Your task to perform on an android device: stop showing notifications on the lock screen Image 0: 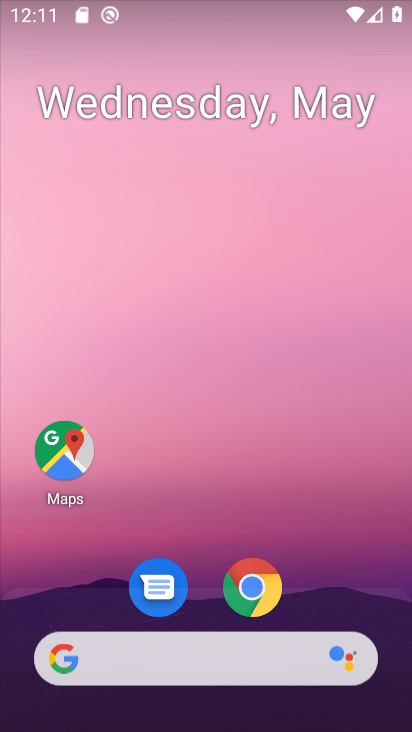
Step 0: drag from (97, 621) to (170, 218)
Your task to perform on an android device: stop showing notifications on the lock screen Image 1: 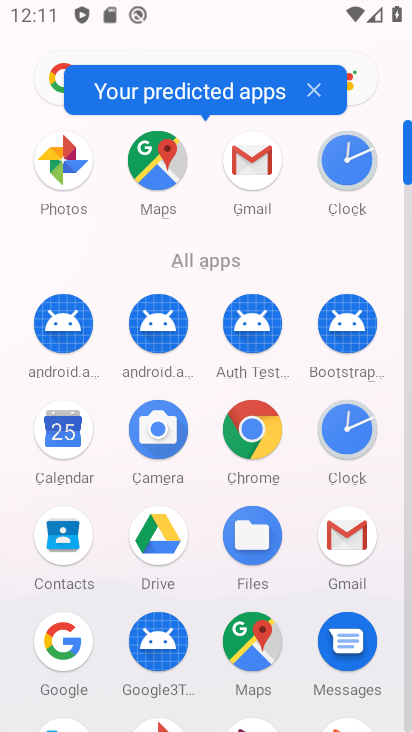
Step 1: drag from (150, 588) to (222, 337)
Your task to perform on an android device: stop showing notifications on the lock screen Image 2: 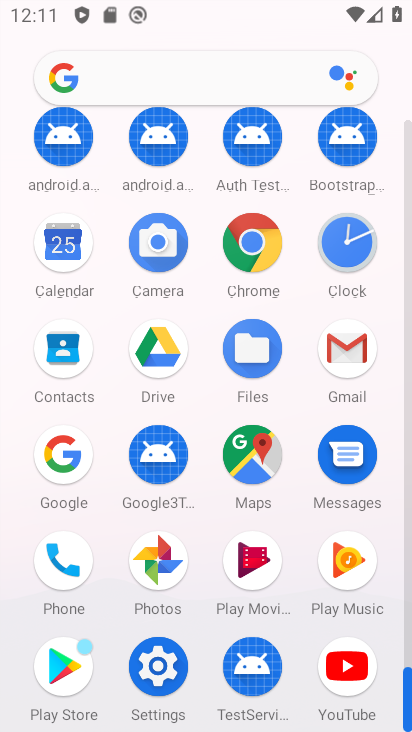
Step 2: click (168, 660)
Your task to perform on an android device: stop showing notifications on the lock screen Image 3: 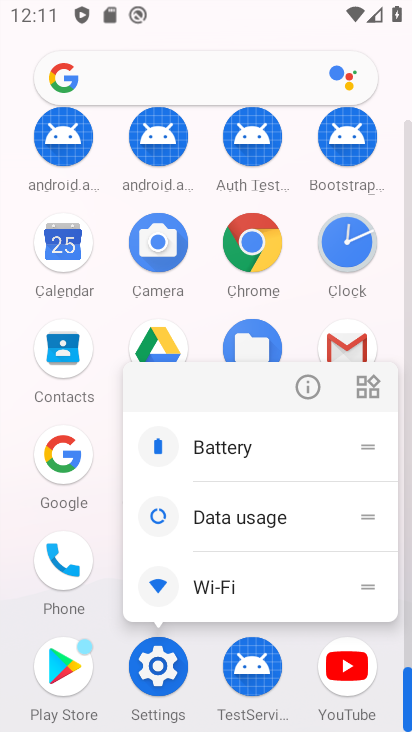
Step 3: click (163, 672)
Your task to perform on an android device: stop showing notifications on the lock screen Image 4: 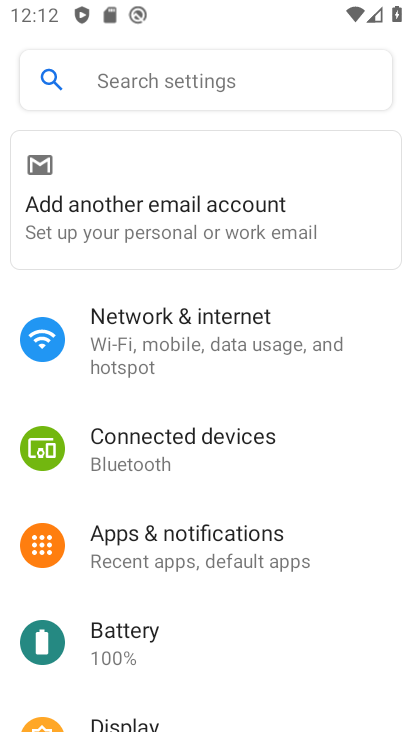
Step 4: drag from (74, 627) to (148, 341)
Your task to perform on an android device: stop showing notifications on the lock screen Image 5: 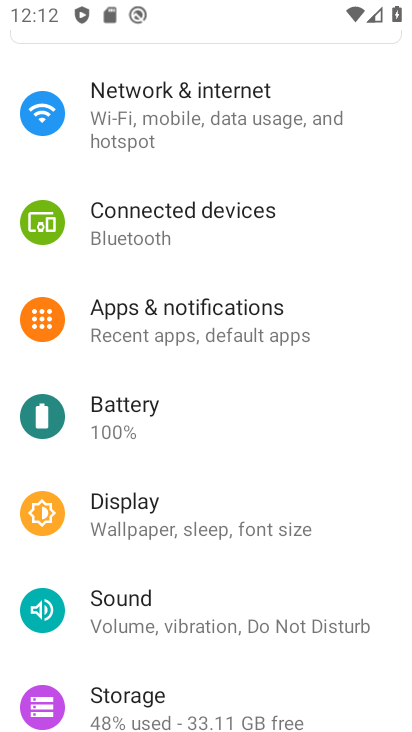
Step 5: click (219, 340)
Your task to perform on an android device: stop showing notifications on the lock screen Image 6: 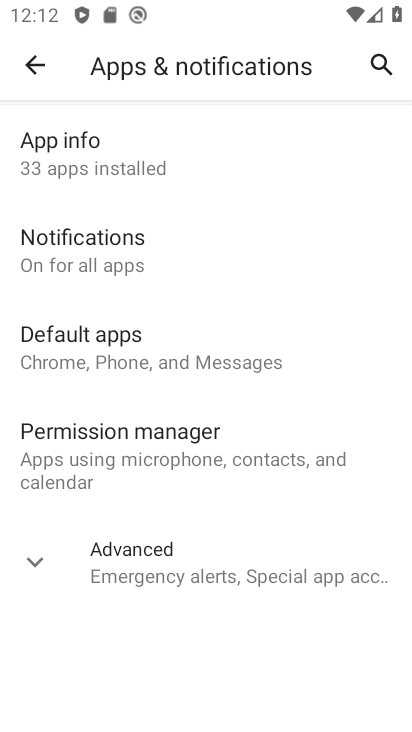
Step 6: click (140, 273)
Your task to perform on an android device: stop showing notifications on the lock screen Image 7: 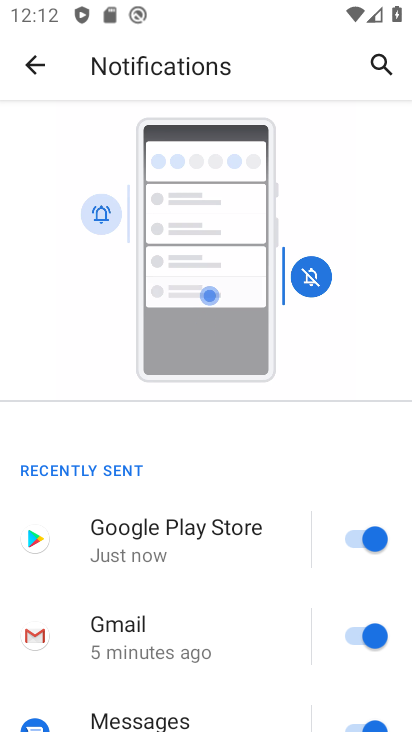
Step 7: drag from (113, 661) to (222, 178)
Your task to perform on an android device: stop showing notifications on the lock screen Image 8: 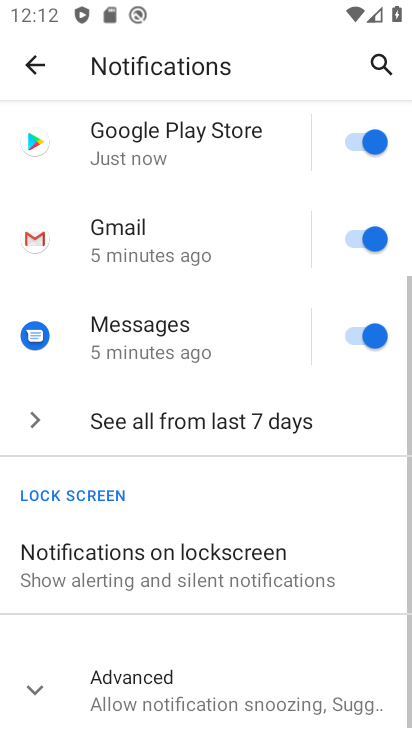
Step 8: drag from (148, 655) to (227, 305)
Your task to perform on an android device: stop showing notifications on the lock screen Image 9: 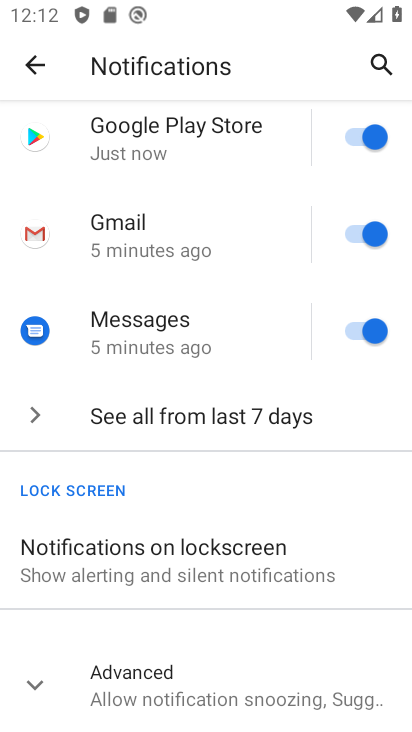
Step 9: click (246, 585)
Your task to perform on an android device: stop showing notifications on the lock screen Image 10: 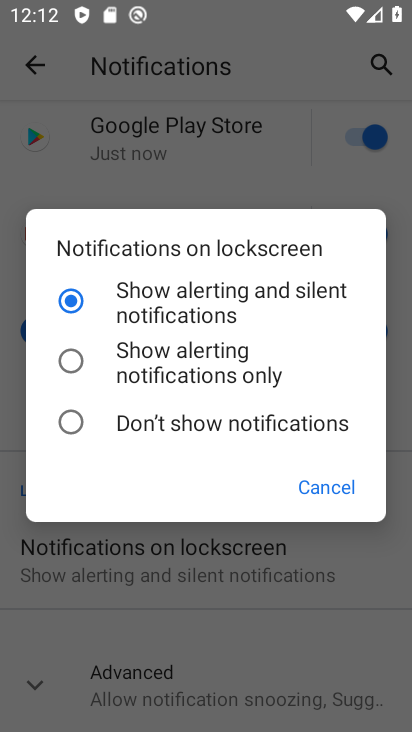
Step 10: click (256, 430)
Your task to perform on an android device: stop showing notifications on the lock screen Image 11: 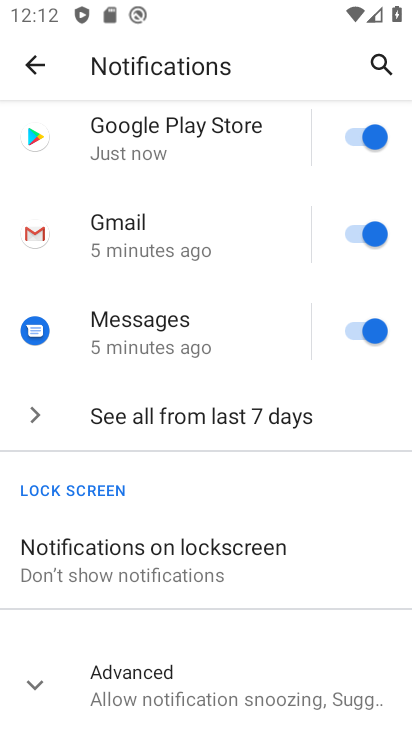
Step 11: task complete